Your task to perform on an android device: change the clock display to analog Image 0: 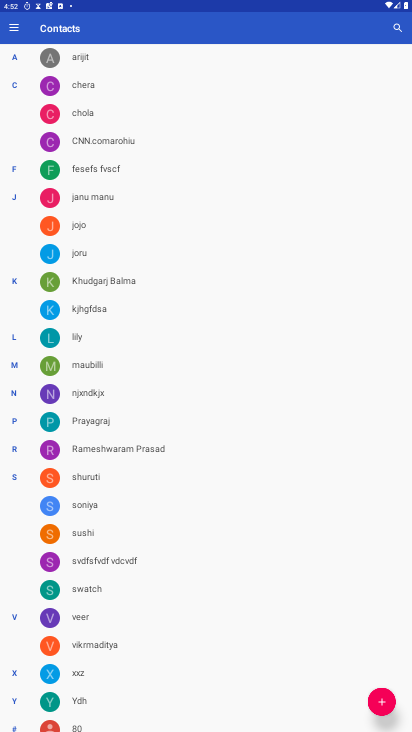
Step 0: press home button
Your task to perform on an android device: change the clock display to analog Image 1: 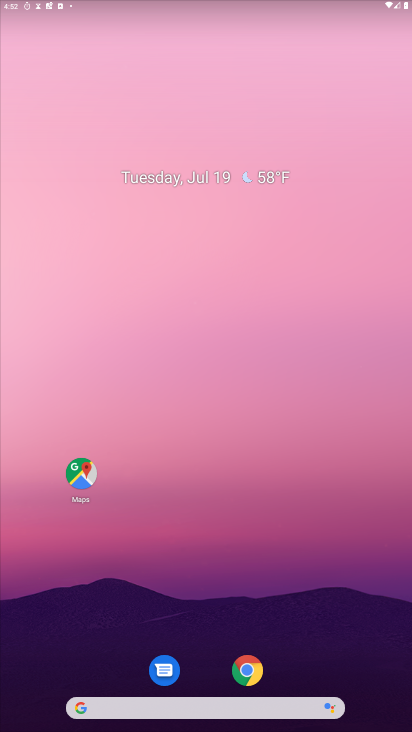
Step 1: drag from (197, 700) to (319, 7)
Your task to perform on an android device: change the clock display to analog Image 2: 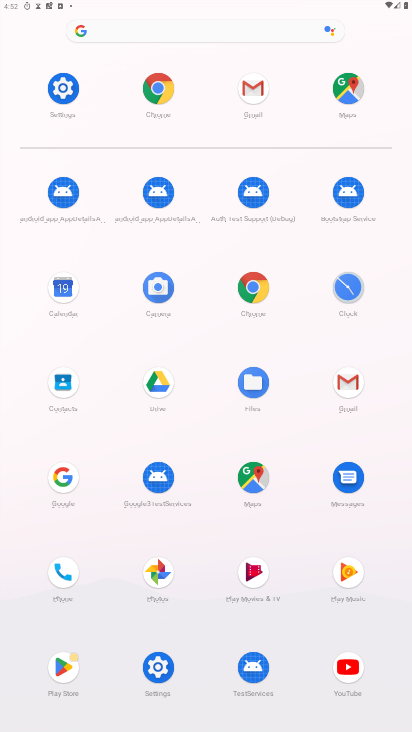
Step 2: click (340, 298)
Your task to perform on an android device: change the clock display to analog Image 3: 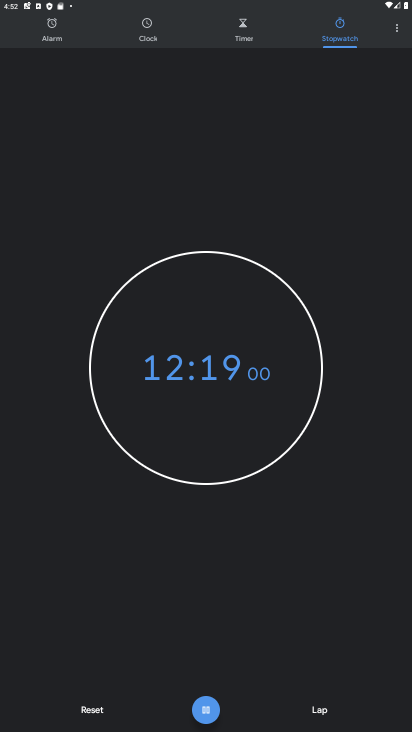
Step 3: click (397, 20)
Your task to perform on an android device: change the clock display to analog Image 4: 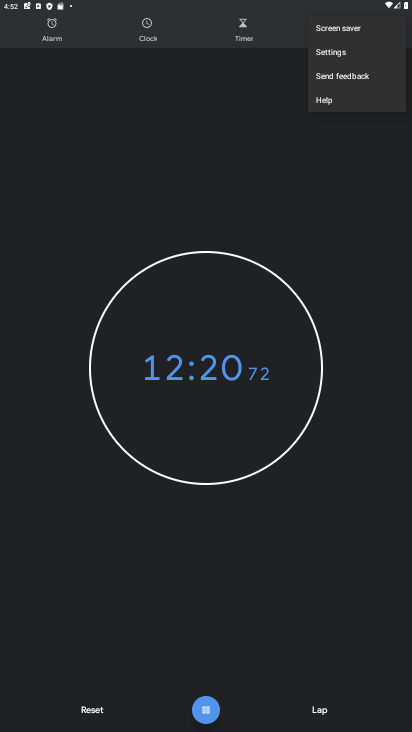
Step 4: click (326, 59)
Your task to perform on an android device: change the clock display to analog Image 5: 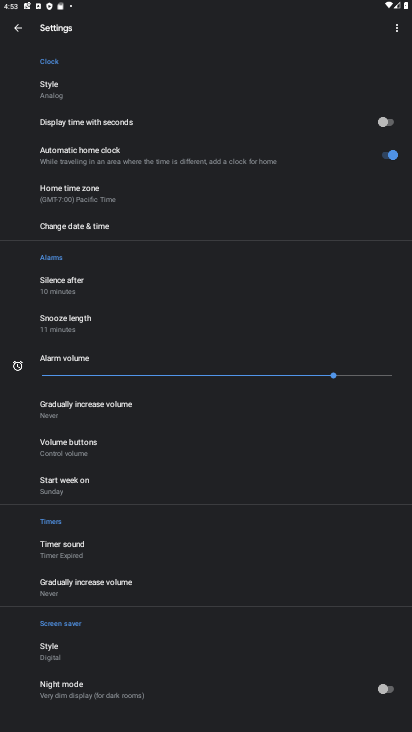
Step 5: task complete